Your task to perform on an android device: turn on the 24-hour format for clock Image 0: 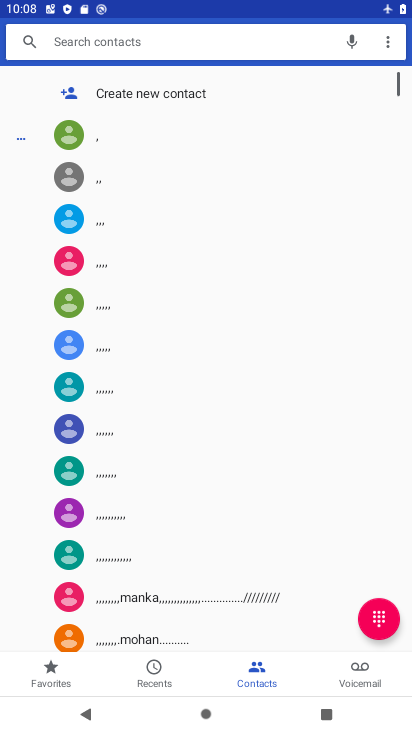
Step 0: press home button
Your task to perform on an android device: turn on the 24-hour format for clock Image 1: 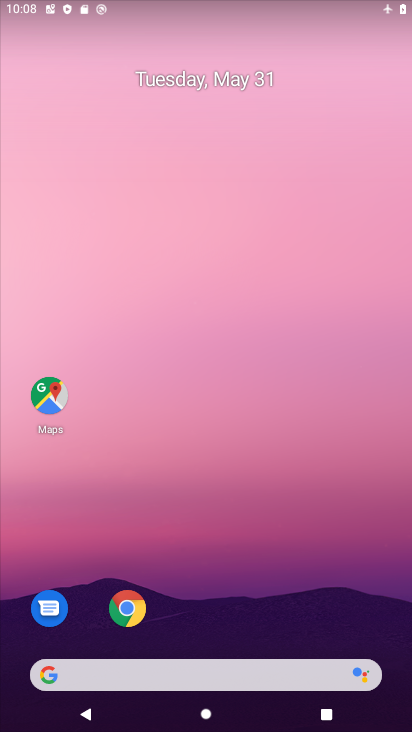
Step 1: drag from (212, 655) to (218, 5)
Your task to perform on an android device: turn on the 24-hour format for clock Image 2: 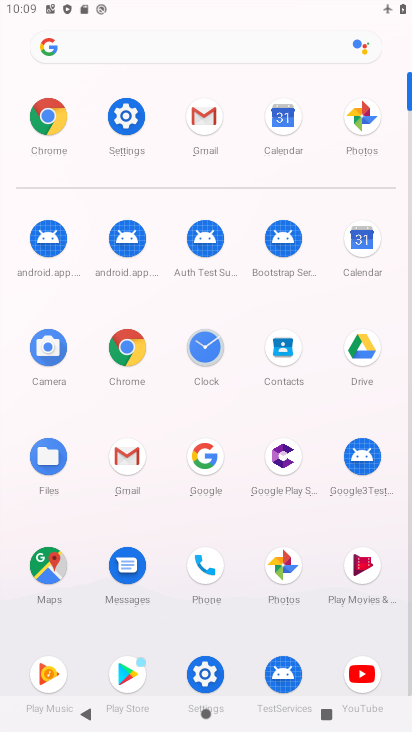
Step 2: click (214, 340)
Your task to perform on an android device: turn on the 24-hour format for clock Image 3: 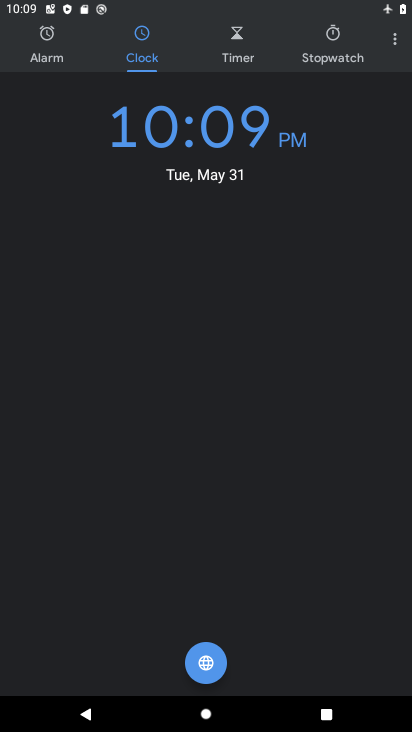
Step 3: click (392, 41)
Your task to perform on an android device: turn on the 24-hour format for clock Image 4: 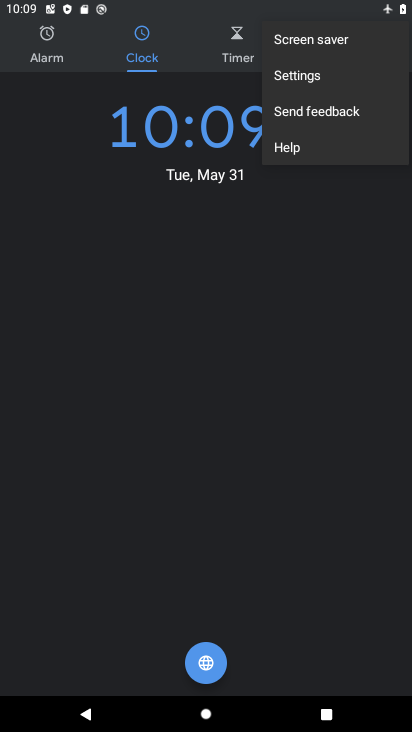
Step 4: click (290, 79)
Your task to perform on an android device: turn on the 24-hour format for clock Image 5: 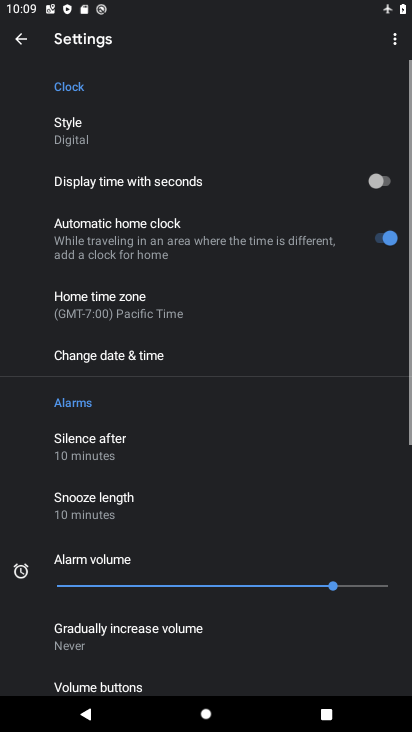
Step 5: drag from (189, 530) to (189, 246)
Your task to perform on an android device: turn on the 24-hour format for clock Image 6: 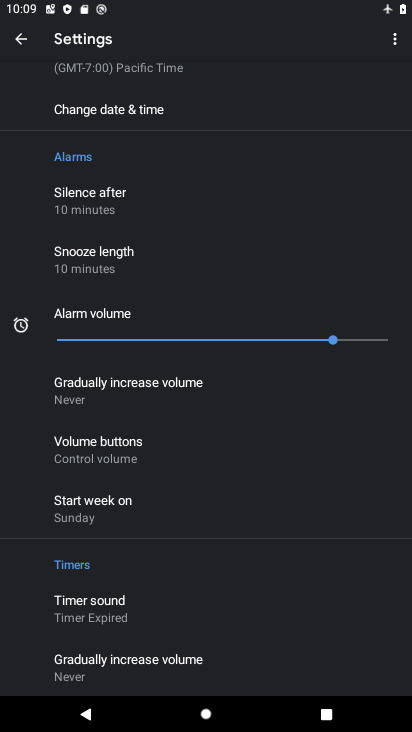
Step 6: click (141, 100)
Your task to perform on an android device: turn on the 24-hour format for clock Image 7: 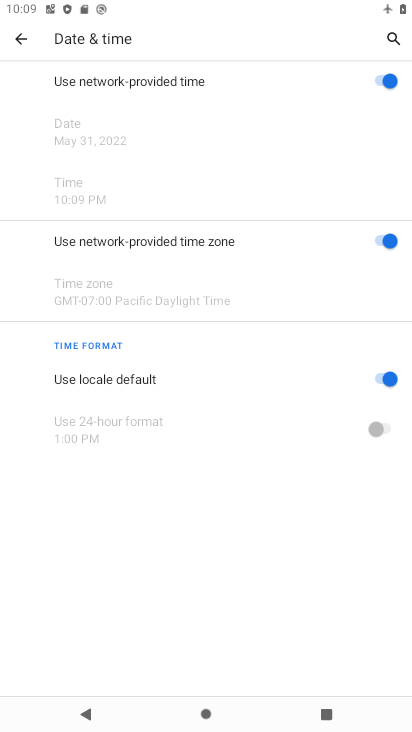
Step 7: click (391, 377)
Your task to perform on an android device: turn on the 24-hour format for clock Image 8: 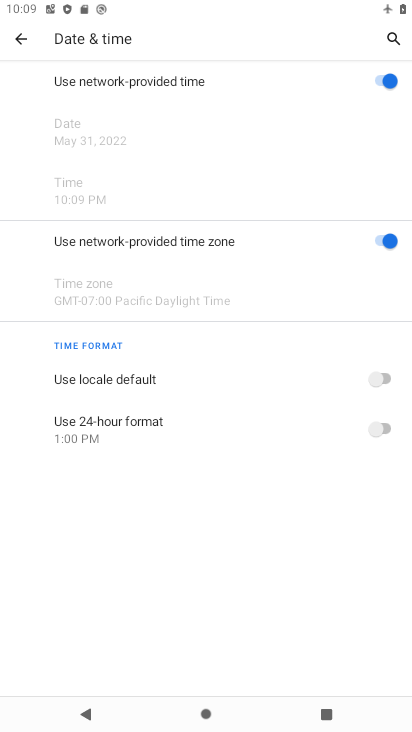
Step 8: click (390, 425)
Your task to perform on an android device: turn on the 24-hour format for clock Image 9: 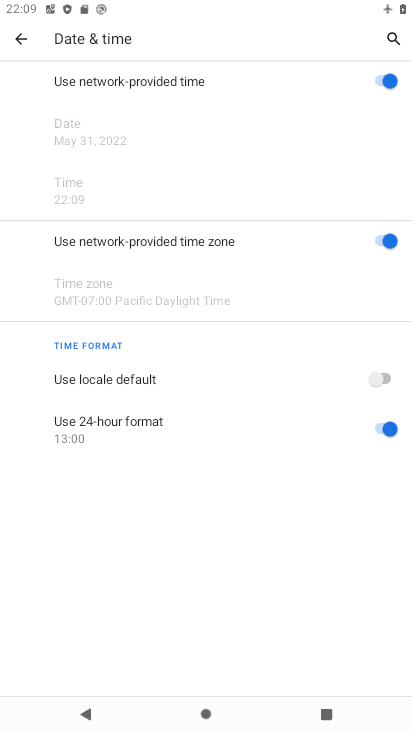
Step 9: task complete